Your task to perform on an android device: show emergency info Image 0: 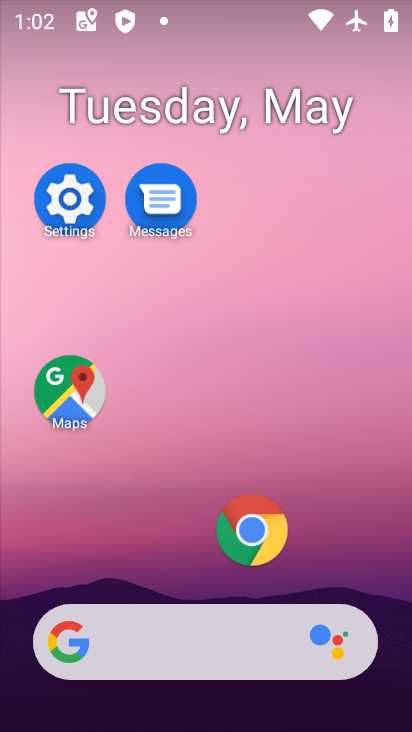
Step 0: drag from (146, 501) to (276, 111)
Your task to perform on an android device: show emergency info Image 1: 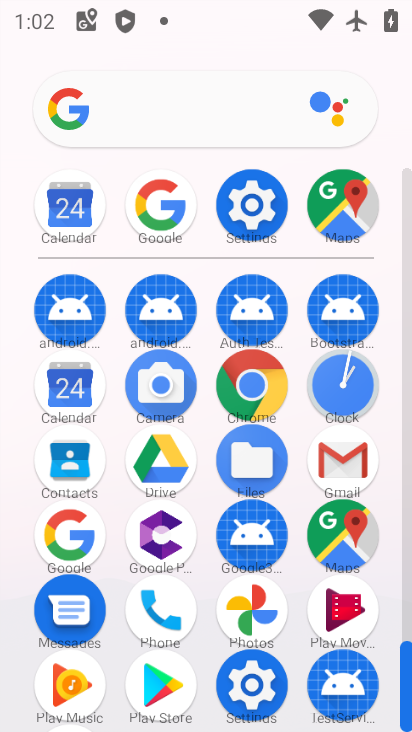
Step 1: click (269, 680)
Your task to perform on an android device: show emergency info Image 2: 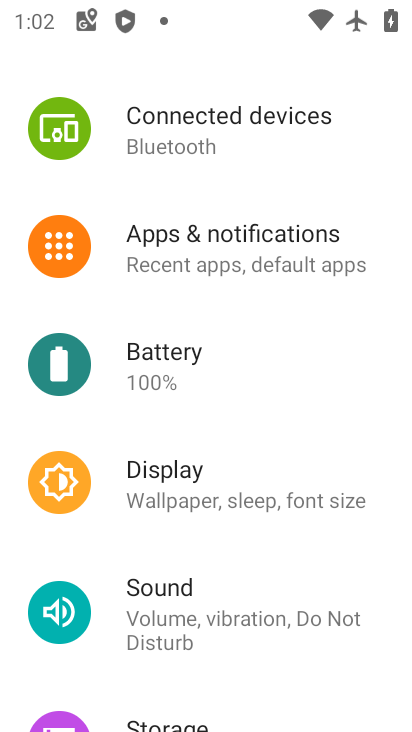
Step 2: drag from (262, 674) to (282, 144)
Your task to perform on an android device: show emergency info Image 3: 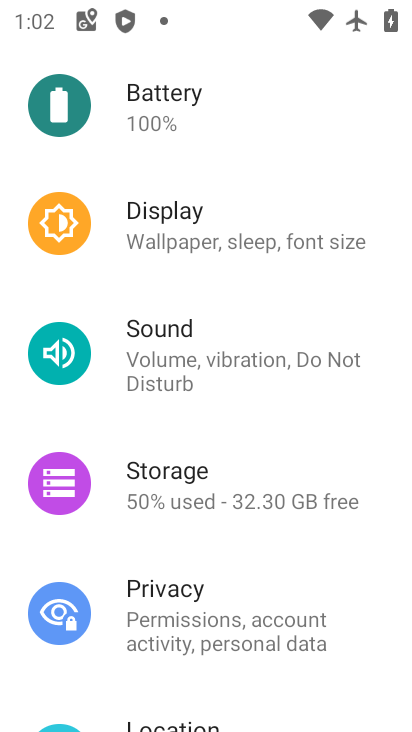
Step 3: drag from (232, 623) to (212, 70)
Your task to perform on an android device: show emergency info Image 4: 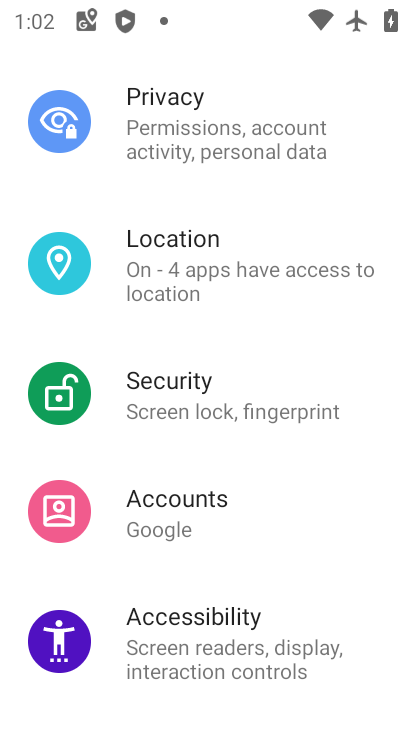
Step 4: drag from (249, 331) to (251, 41)
Your task to perform on an android device: show emergency info Image 5: 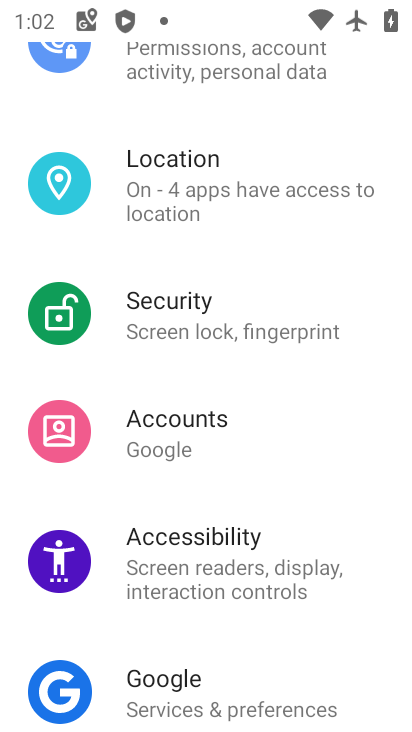
Step 5: drag from (204, 628) to (225, 72)
Your task to perform on an android device: show emergency info Image 6: 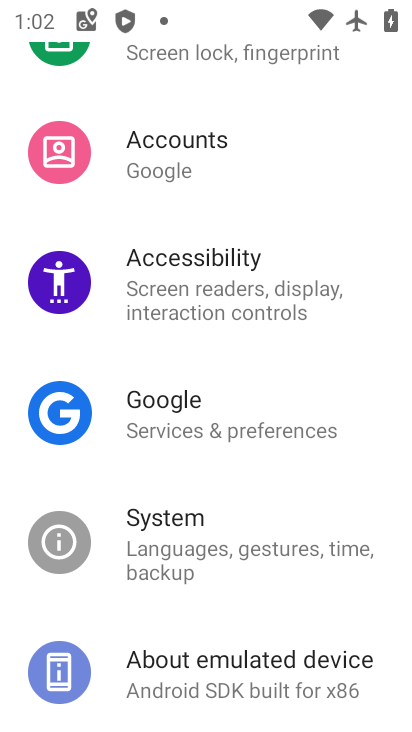
Step 6: drag from (217, 623) to (202, 104)
Your task to perform on an android device: show emergency info Image 7: 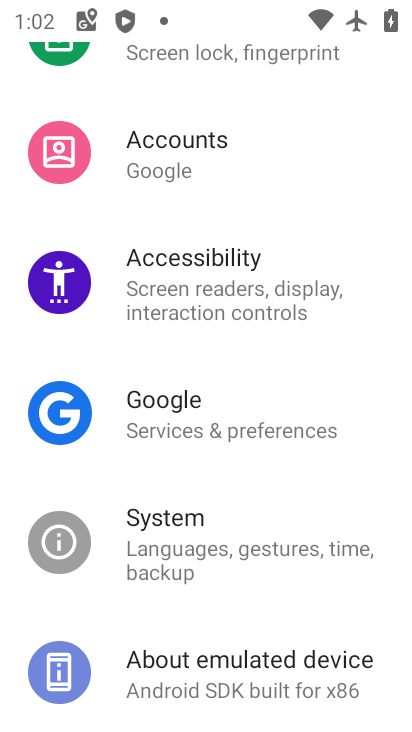
Step 7: click (215, 675)
Your task to perform on an android device: show emergency info Image 8: 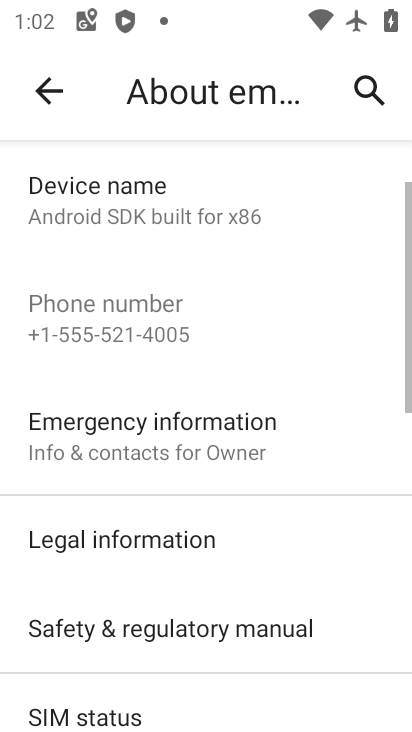
Step 8: click (200, 441)
Your task to perform on an android device: show emergency info Image 9: 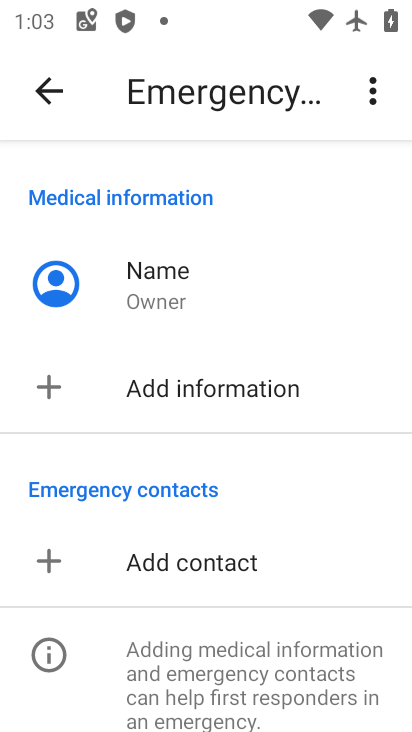
Step 9: task complete